Your task to perform on an android device: What's the weather? Image 0: 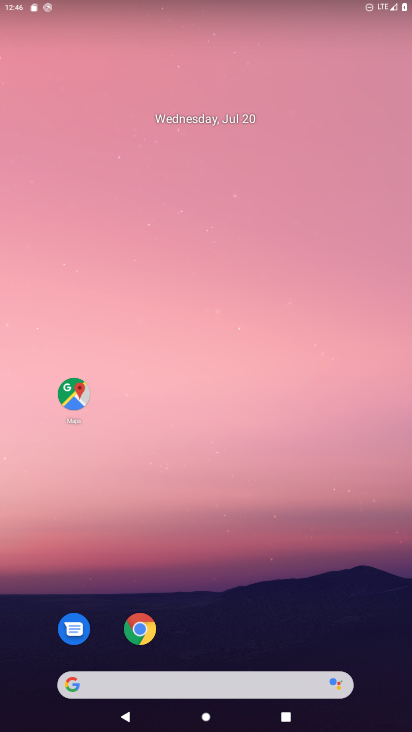
Step 0: click (142, 680)
Your task to perform on an android device: What's the weather? Image 1: 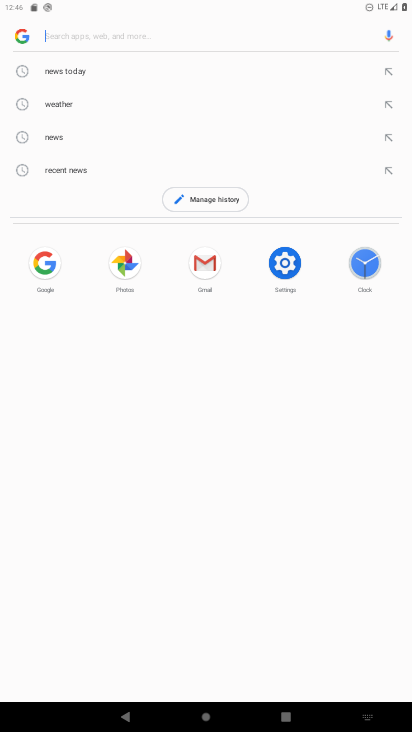
Step 1: click (52, 108)
Your task to perform on an android device: What's the weather? Image 2: 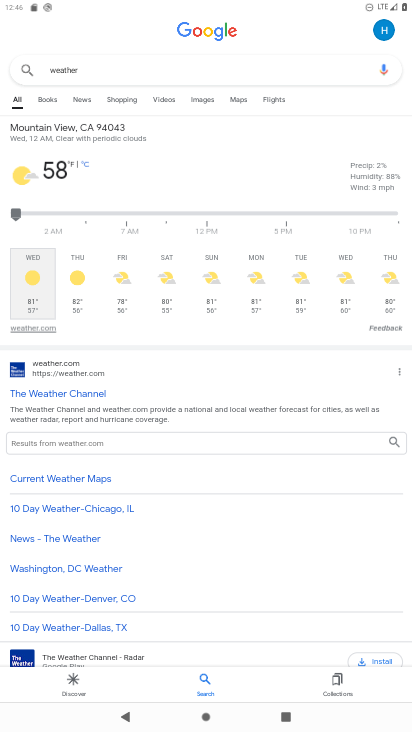
Step 2: task complete